Your task to perform on an android device: turn off notifications in google photos Image 0: 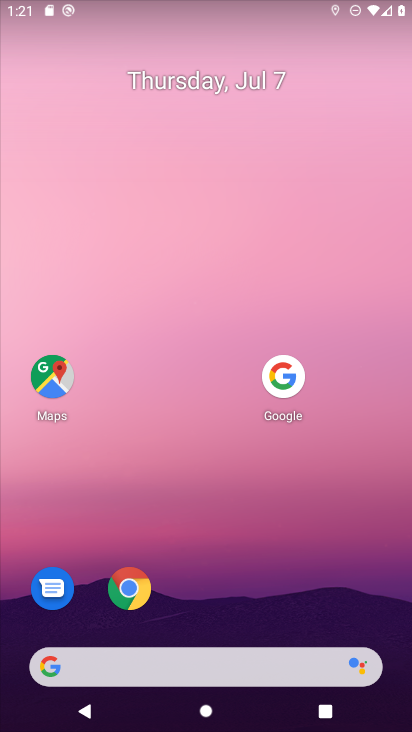
Step 0: drag from (166, 658) to (404, 109)
Your task to perform on an android device: turn off notifications in google photos Image 1: 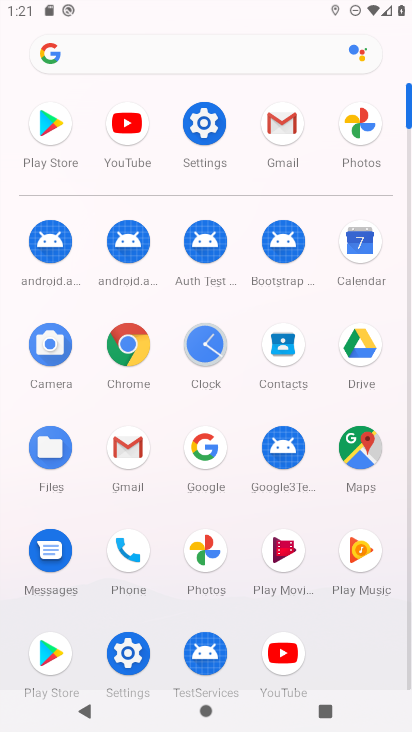
Step 1: click (215, 558)
Your task to perform on an android device: turn off notifications in google photos Image 2: 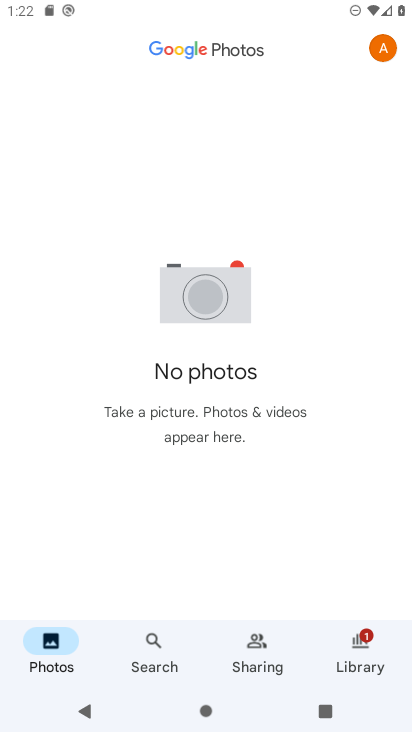
Step 2: click (391, 56)
Your task to perform on an android device: turn off notifications in google photos Image 3: 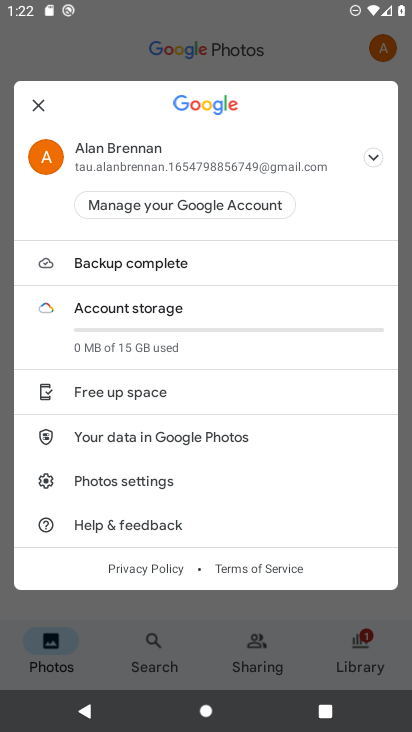
Step 3: click (112, 482)
Your task to perform on an android device: turn off notifications in google photos Image 4: 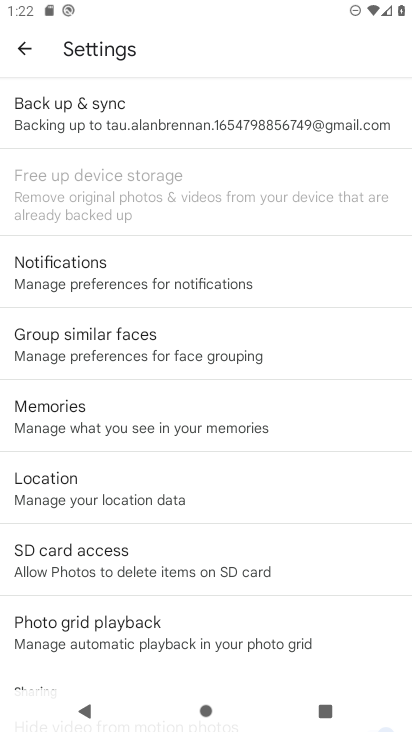
Step 4: click (188, 290)
Your task to perform on an android device: turn off notifications in google photos Image 5: 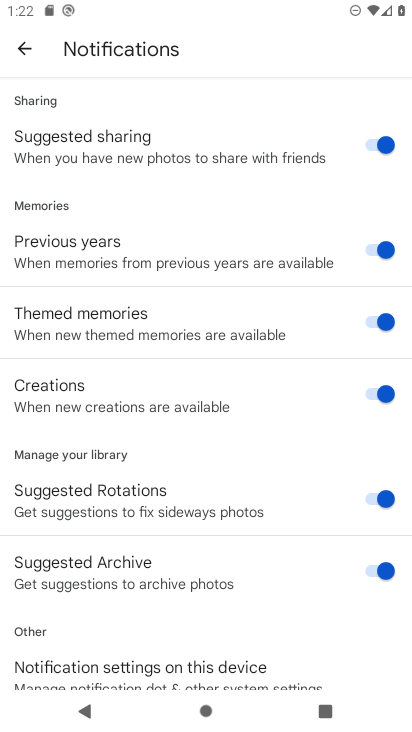
Step 5: click (124, 668)
Your task to perform on an android device: turn off notifications in google photos Image 6: 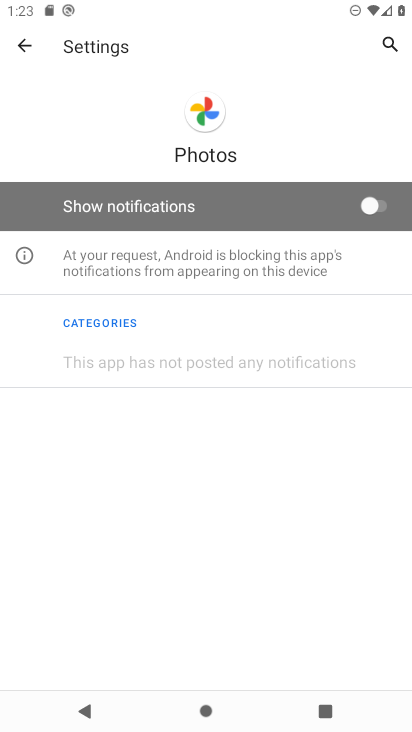
Step 6: task complete